Your task to perform on an android device: open wifi settings Image 0: 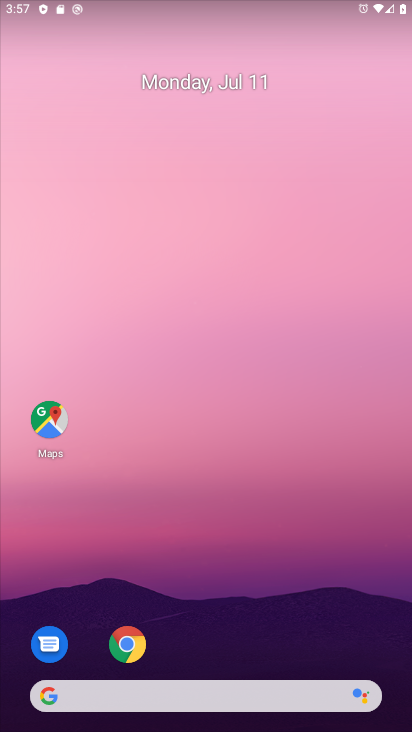
Step 0: drag from (226, 490) to (215, 38)
Your task to perform on an android device: open wifi settings Image 1: 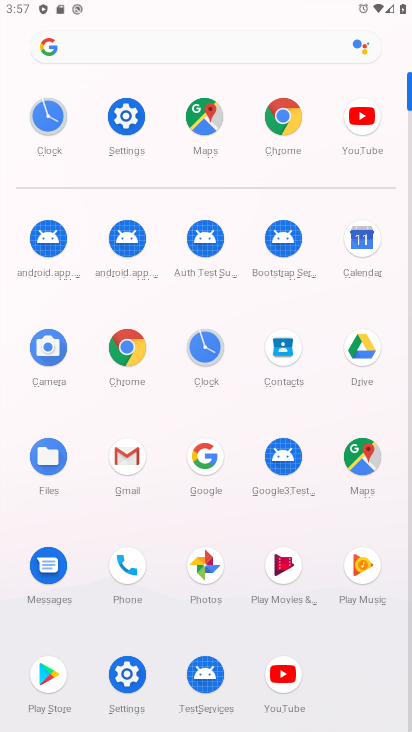
Step 1: click (122, 124)
Your task to perform on an android device: open wifi settings Image 2: 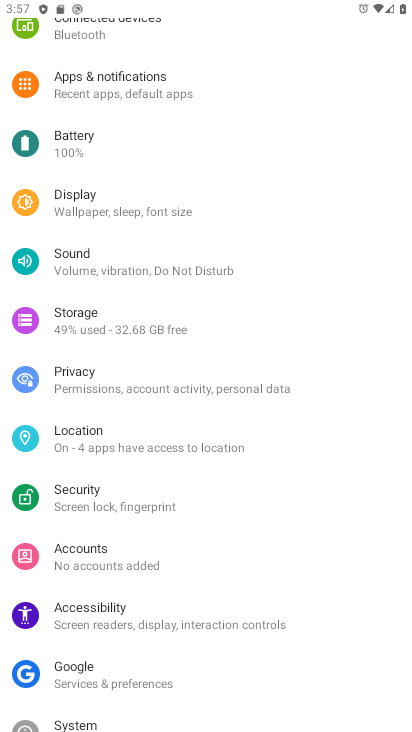
Step 2: drag from (278, 127) to (288, 490)
Your task to perform on an android device: open wifi settings Image 3: 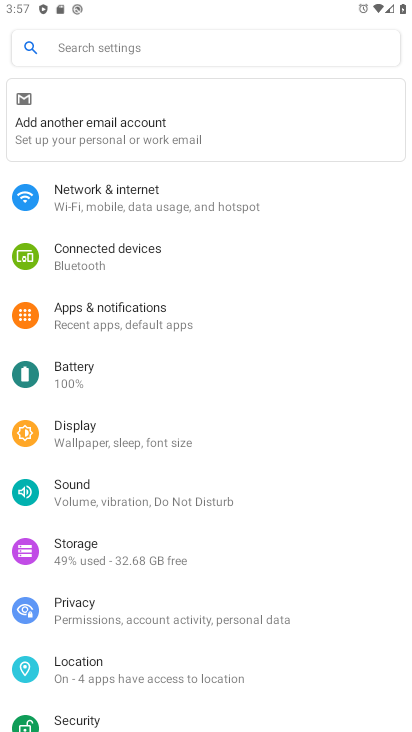
Step 3: click (188, 195)
Your task to perform on an android device: open wifi settings Image 4: 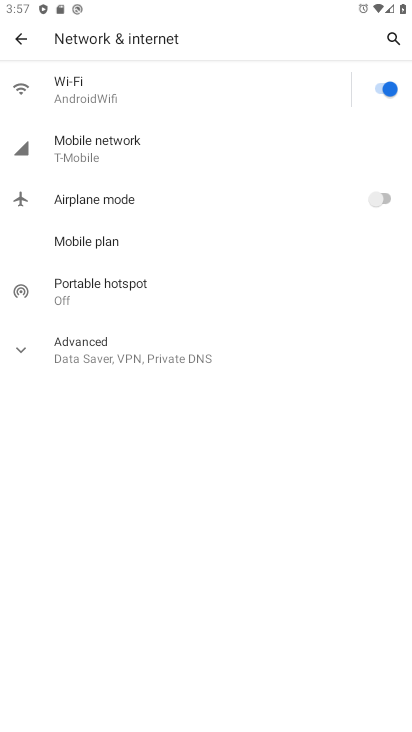
Step 4: click (106, 88)
Your task to perform on an android device: open wifi settings Image 5: 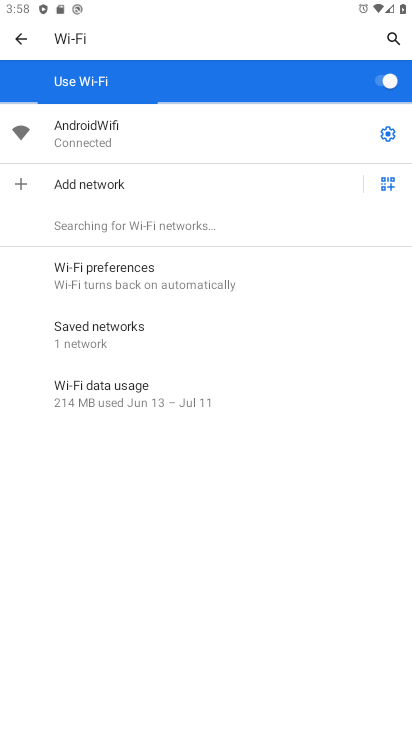
Step 5: click (391, 138)
Your task to perform on an android device: open wifi settings Image 6: 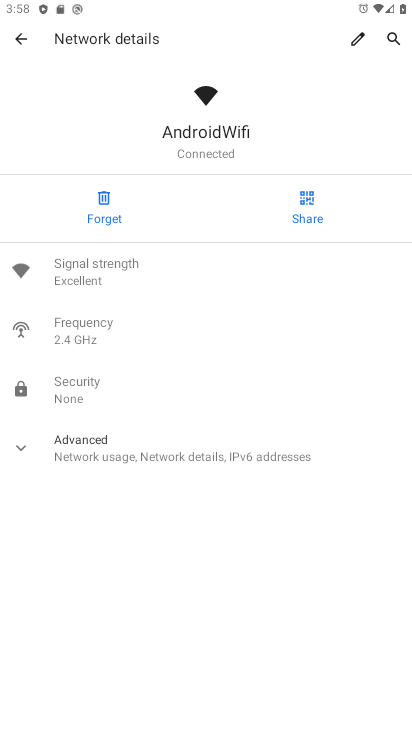
Step 6: click (27, 39)
Your task to perform on an android device: open wifi settings Image 7: 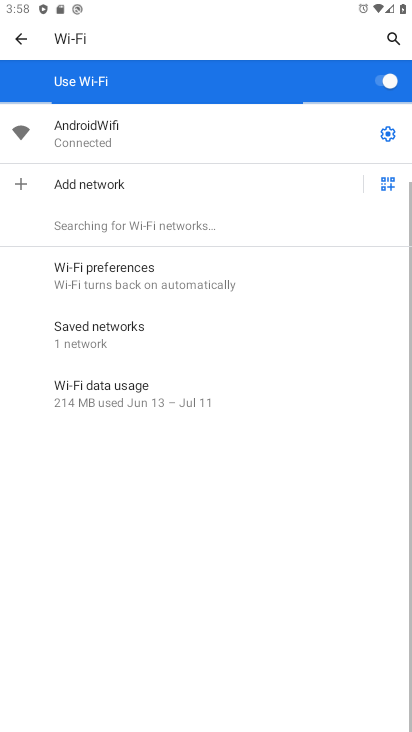
Step 7: click (22, 37)
Your task to perform on an android device: open wifi settings Image 8: 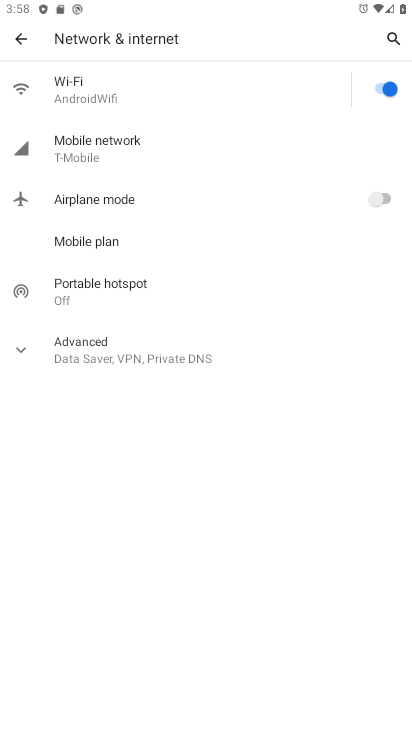
Step 8: click (24, 351)
Your task to perform on an android device: open wifi settings Image 9: 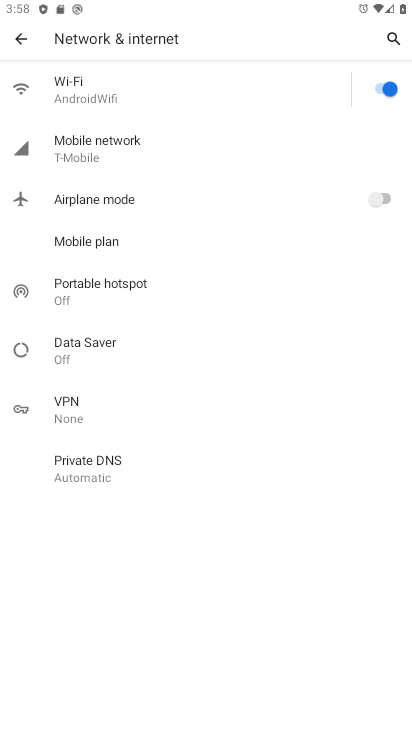
Step 9: task complete